Your task to perform on an android device: open chrome privacy settings Image 0: 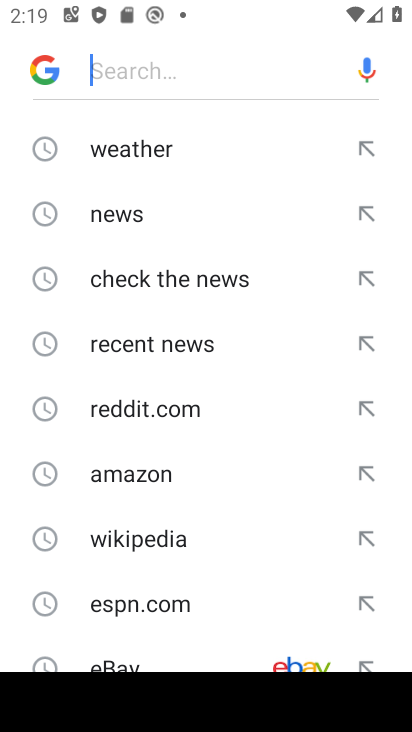
Step 0: press back button
Your task to perform on an android device: open chrome privacy settings Image 1: 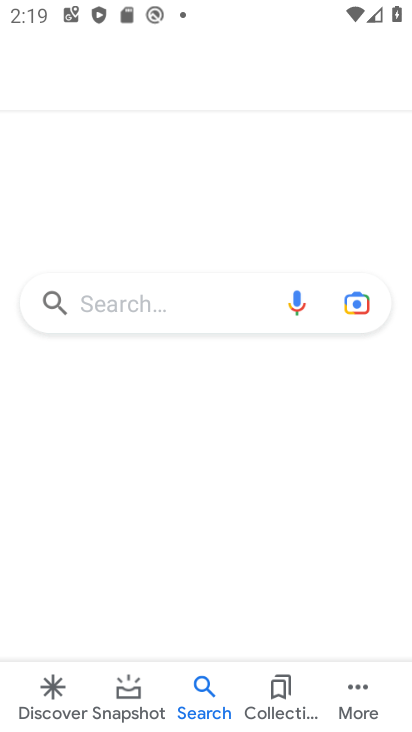
Step 1: press home button
Your task to perform on an android device: open chrome privacy settings Image 2: 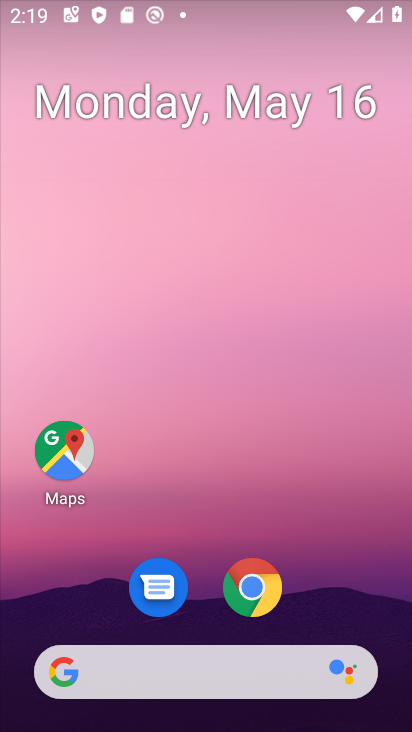
Step 2: drag from (326, 486) to (226, 234)
Your task to perform on an android device: open chrome privacy settings Image 3: 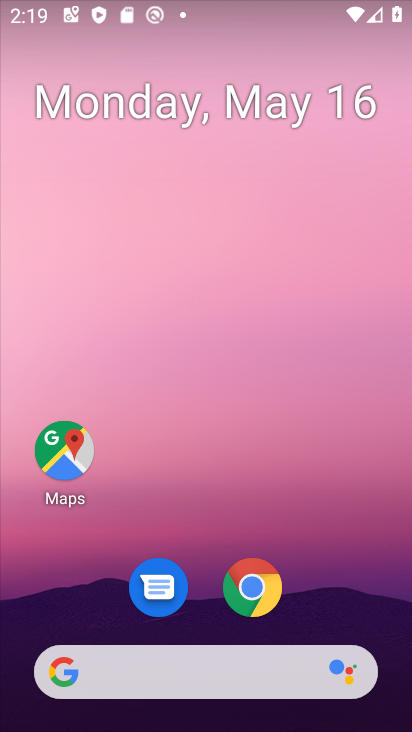
Step 3: click (256, 286)
Your task to perform on an android device: open chrome privacy settings Image 4: 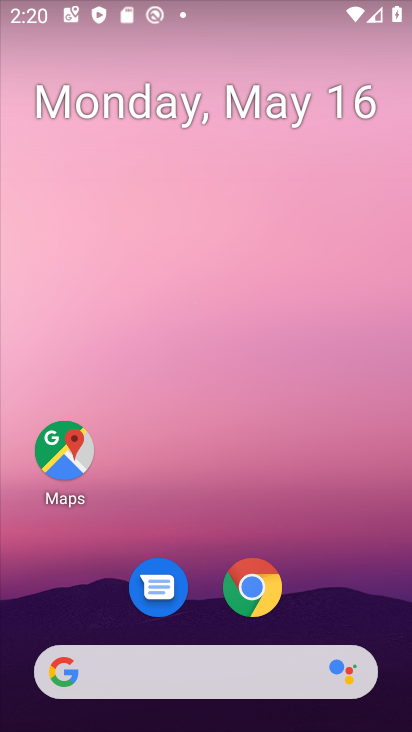
Step 4: drag from (305, 463) to (238, 169)
Your task to perform on an android device: open chrome privacy settings Image 5: 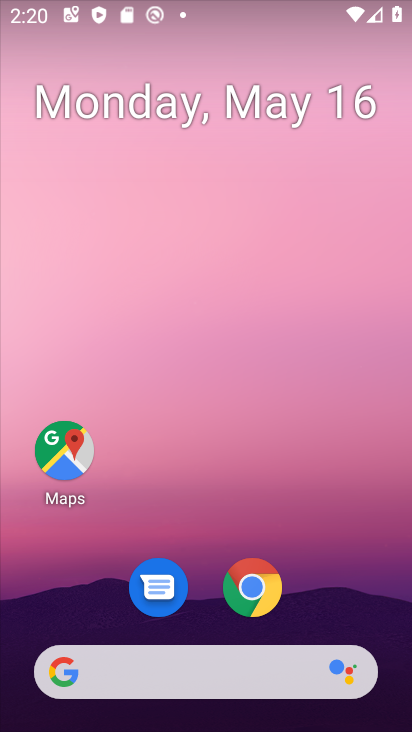
Step 5: drag from (305, 468) to (206, 139)
Your task to perform on an android device: open chrome privacy settings Image 6: 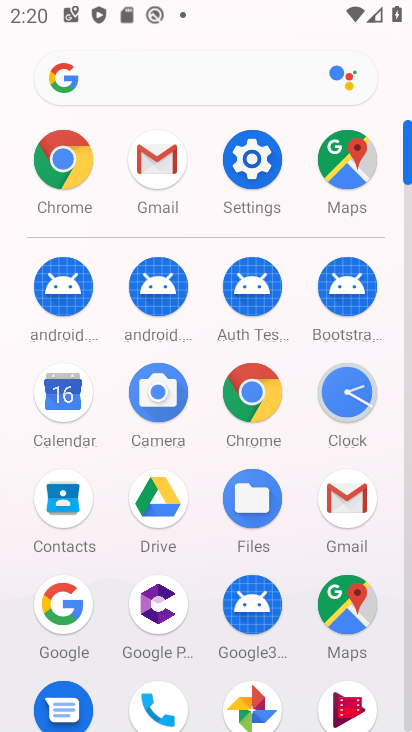
Step 6: click (253, 166)
Your task to perform on an android device: open chrome privacy settings Image 7: 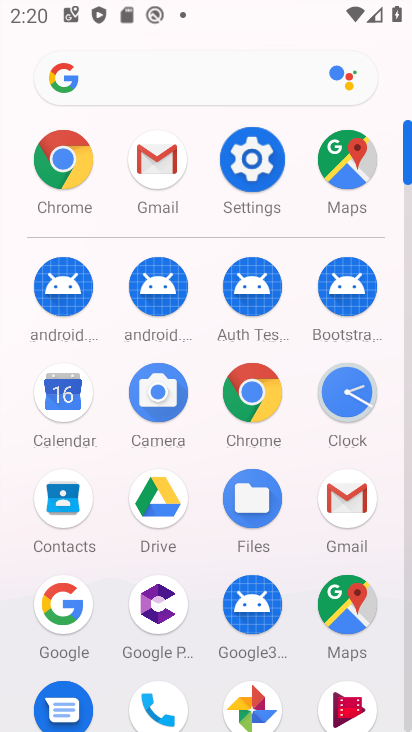
Step 7: click (253, 166)
Your task to perform on an android device: open chrome privacy settings Image 8: 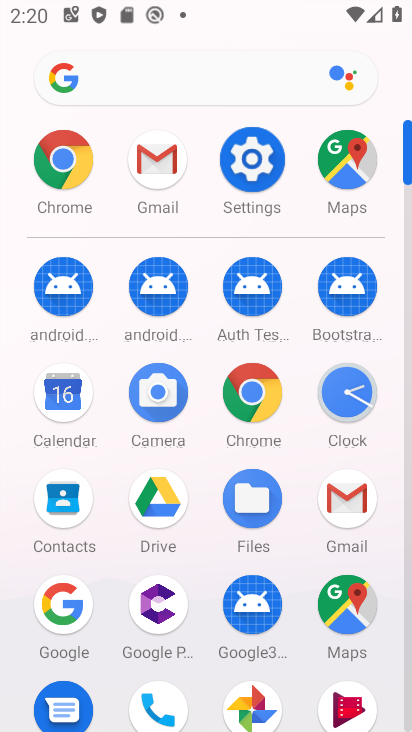
Step 8: click (253, 166)
Your task to perform on an android device: open chrome privacy settings Image 9: 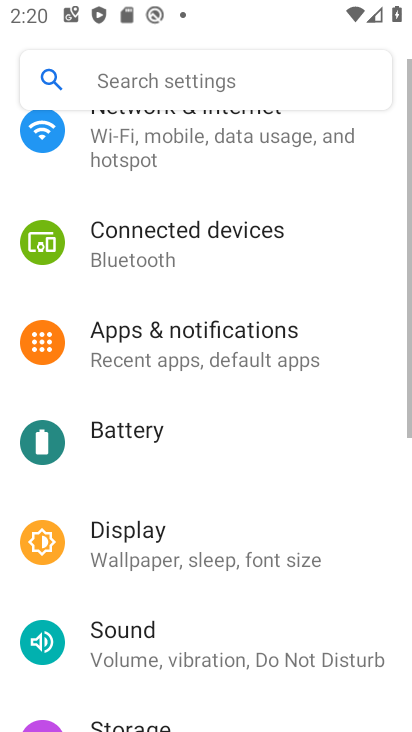
Step 9: click (253, 166)
Your task to perform on an android device: open chrome privacy settings Image 10: 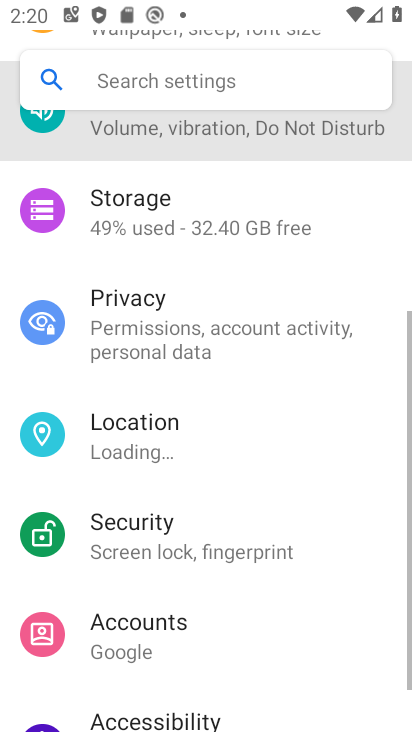
Step 10: click (132, 326)
Your task to perform on an android device: open chrome privacy settings Image 11: 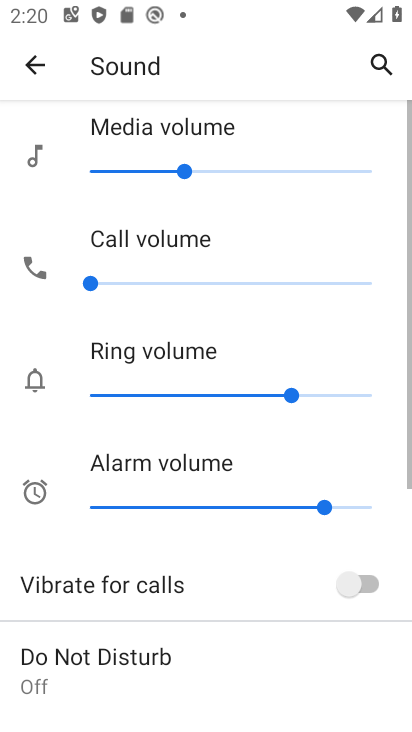
Step 11: press back button
Your task to perform on an android device: open chrome privacy settings Image 12: 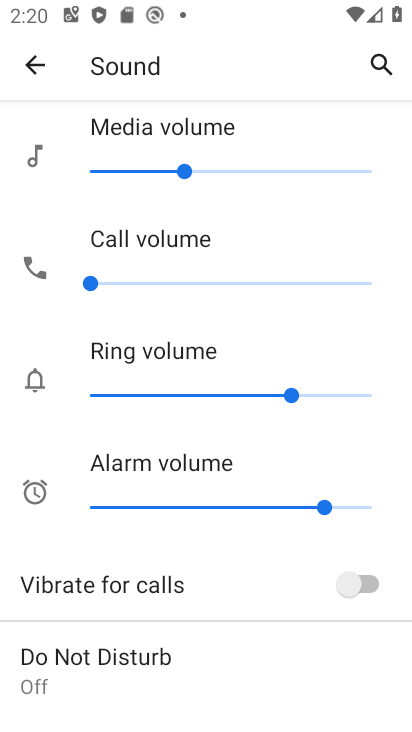
Step 12: press back button
Your task to perform on an android device: open chrome privacy settings Image 13: 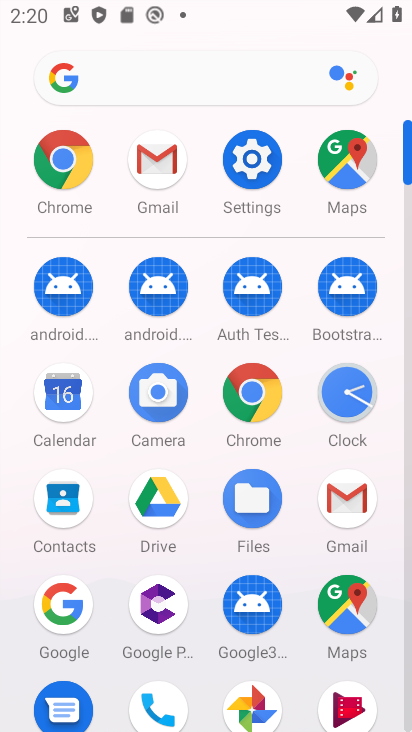
Step 13: click (247, 393)
Your task to perform on an android device: open chrome privacy settings Image 14: 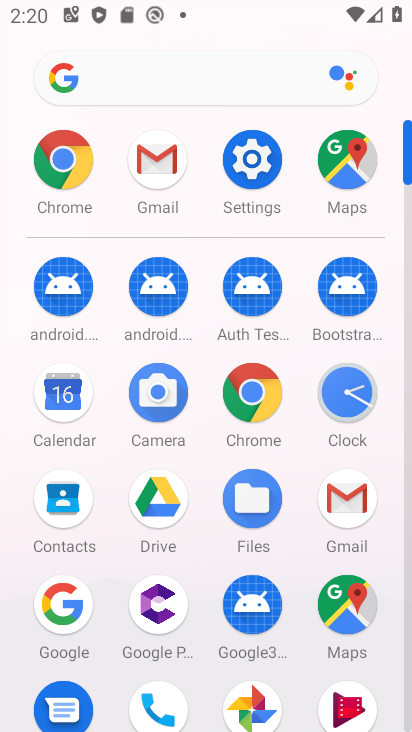
Step 14: click (247, 393)
Your task to perform on an android device: open chrome privacy settings Image 15: 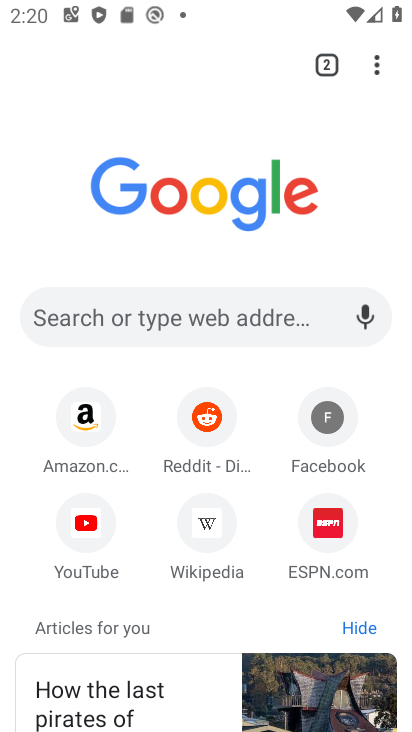
Step 15: drag from (378, 63) to (131, 130)
Your task to perform on an android device: open chrome privacy settings Image 16: 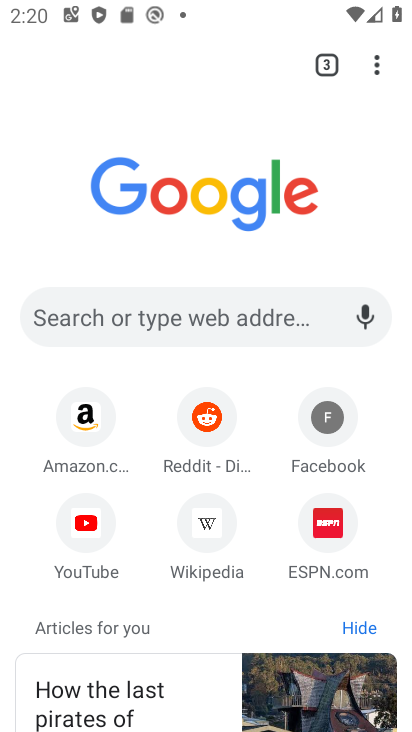
Step 16: drag from (375, 65) to (142, 554)
Your task to perform on an android device: open chrome privacy settings Image 17: 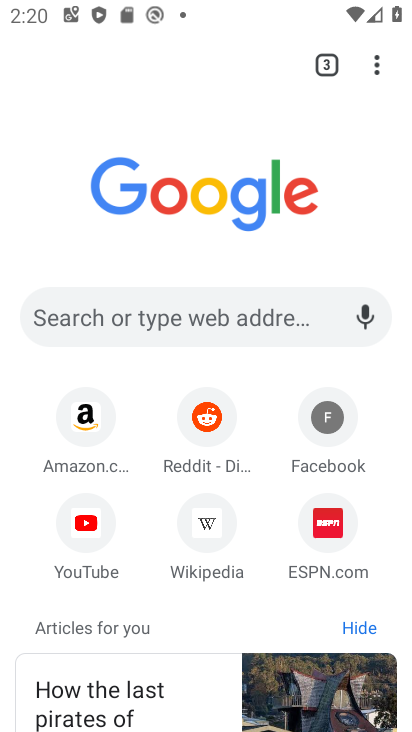
Step 17: click (142, 554)
Your task to perform on an android device: open chrome privacy settings Image 18: 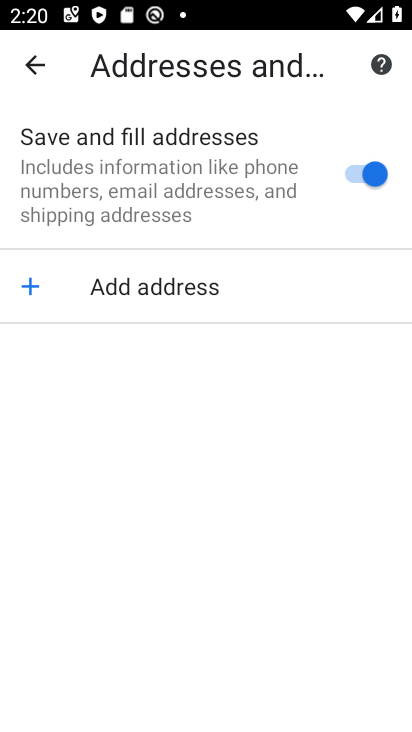
Step 18: click (24, 62)
Your task to perform on an android device: open chrome privacy settings Image 19: 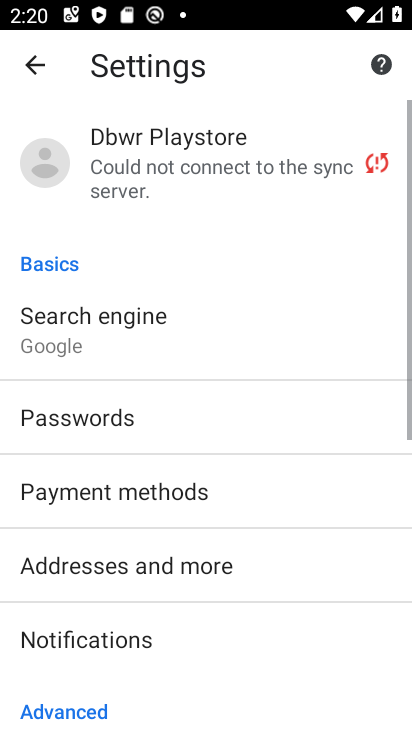
Step 19: task complete